Your task to perform on an android device: Open Yahoo.com Image 0: 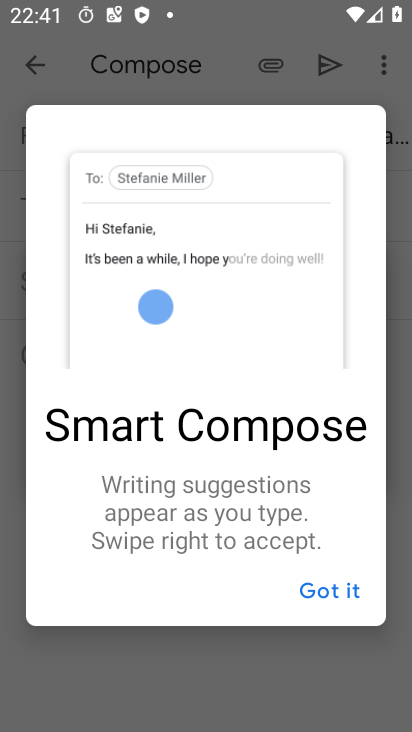
Step 0: press home button
Your task to perform on an android device: Open Yahoo.com Image 1: 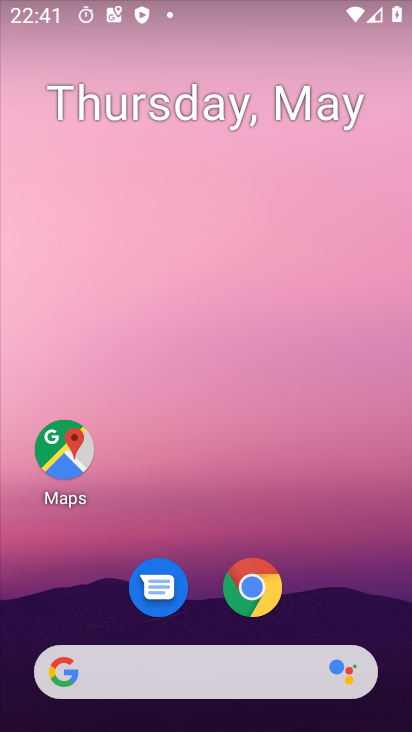
Step 1: click (264, 590)
Your task to perform on an android device: Open Yahoo.com Image 2: 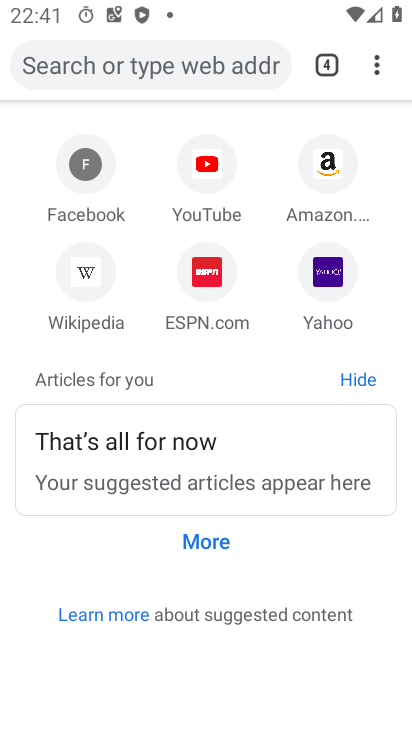
Step 2: click (353, 269)
Your task to perform on an android device: Open Yahoo.com Image 3: 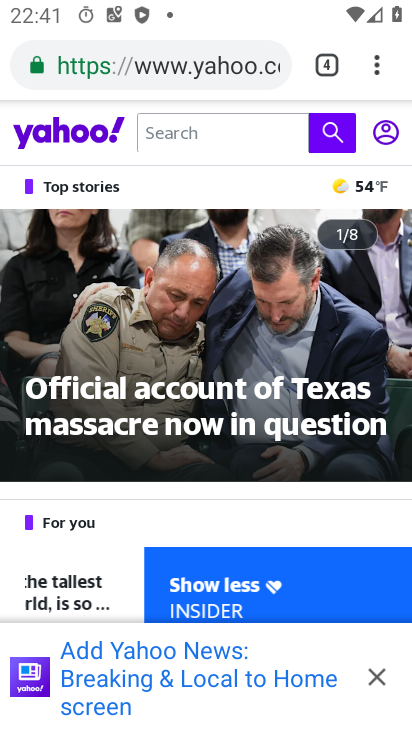
Step 3: task complete